Your task to perform on an android device: When is my next meeting? Image 0: 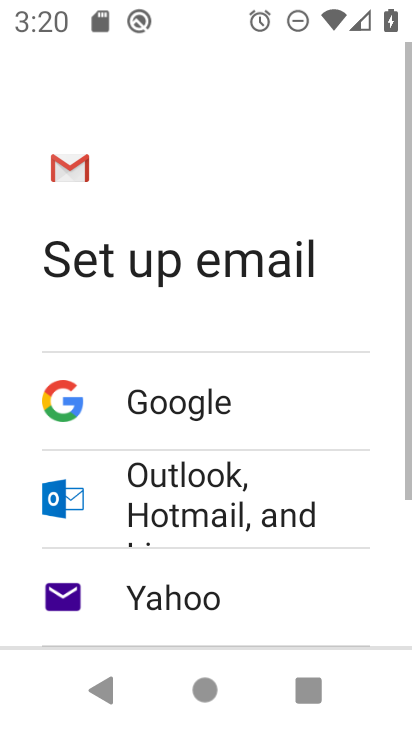
Step 0: press home button
Your task to perform on an android device: When is my next meeting? Image 1: 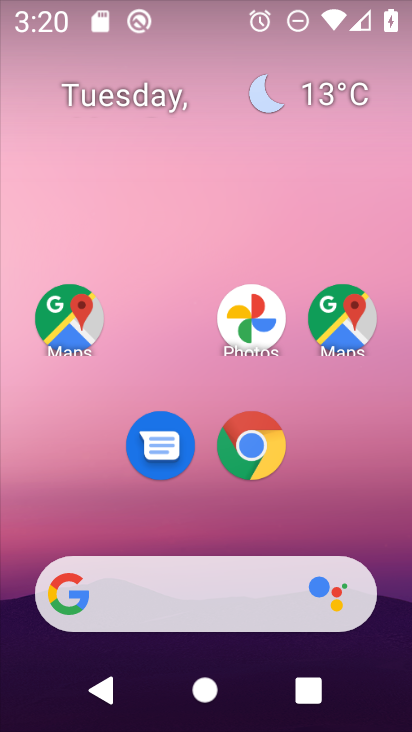
Step 1: drag from (381, 557) to (381, 195)
Your task to perform on an android device: When is my next meeting? Image 2: 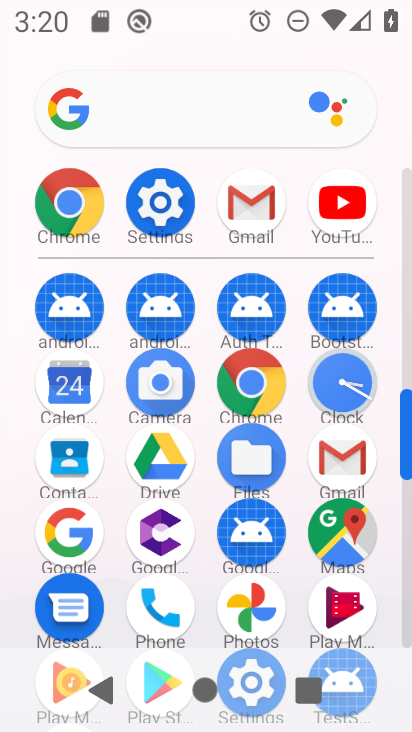
Step 2: click (85, 397)
Your task to perform on an android device: When is my next meeting? Image 3: 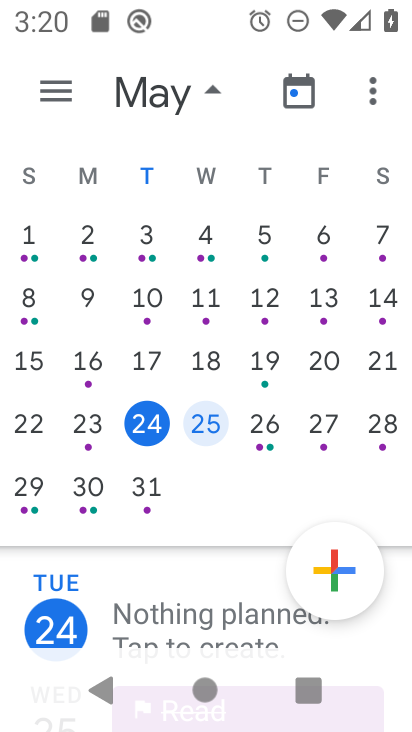
Step 3: drag from (230, 576) to (234, 334)
Your task to perform on an android device: When is my next meeting? Image 4: 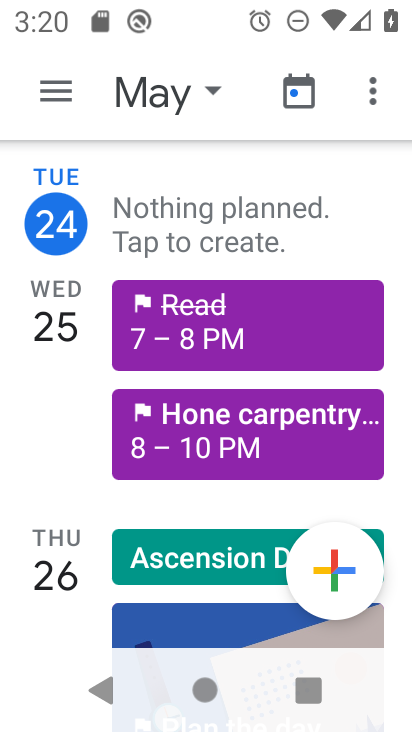
Step 4: click (236, 344)
Your task to perform on an android device: When is my next meeting? Image 5: 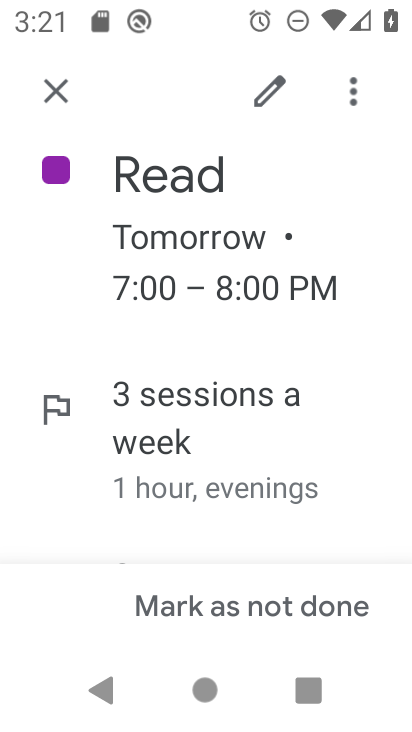
Step 5: task complete